Your task to perform on an android device: Do I have any events today? Image 0: 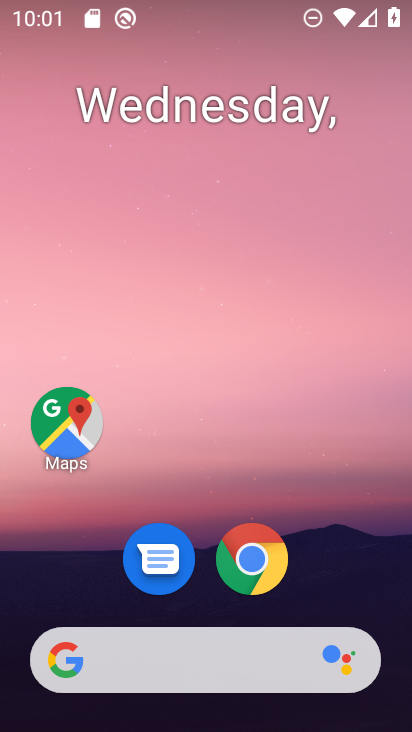
Step 0: drag from (361, 614) to (371, 321)
Your task to perform on an android device: Do I have any events today? Image 1: 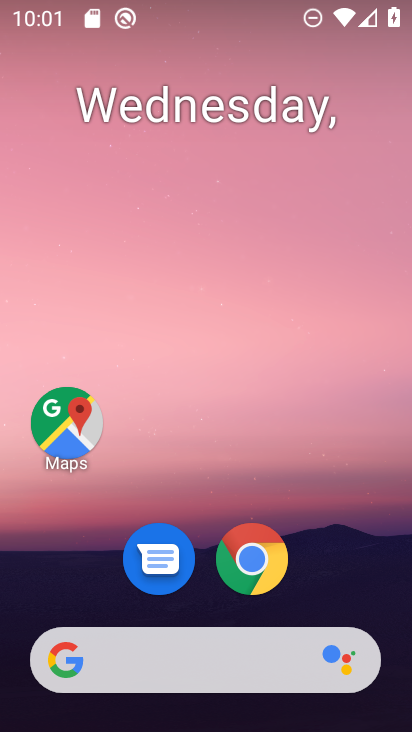
Step 1: drag from (375, 595) to (363, 136)
Your task to perform on an android device: Do I have any events today? Image 2: 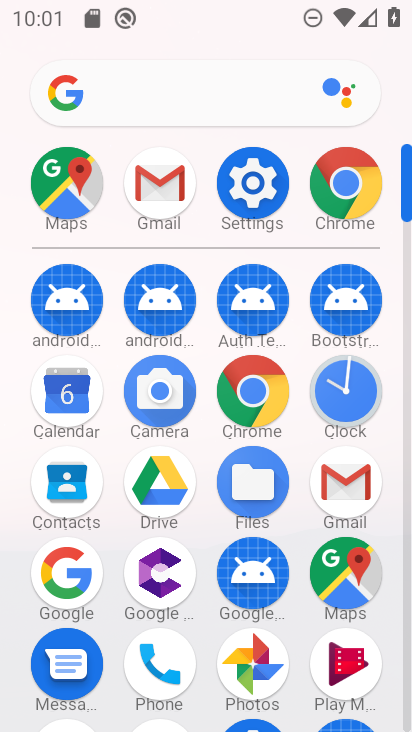
Step 2: click (64, 396)
Your task to perform on an android device: Do I have any events today? Image 3: 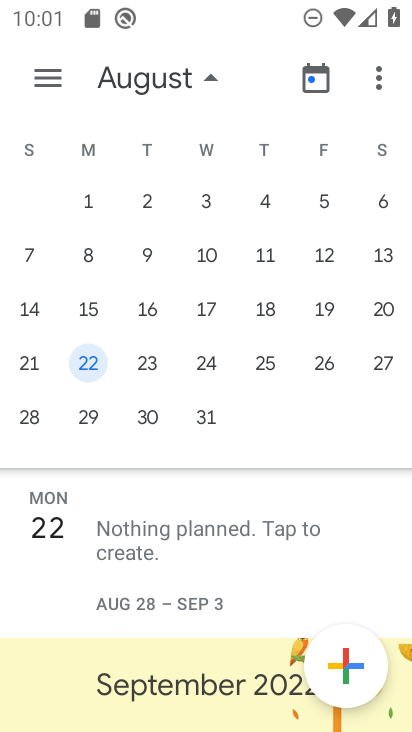
Step 3: drag from (68, 174) to (398, 504)
Your task to perform on an android device: Do I have any events today? Image 4: 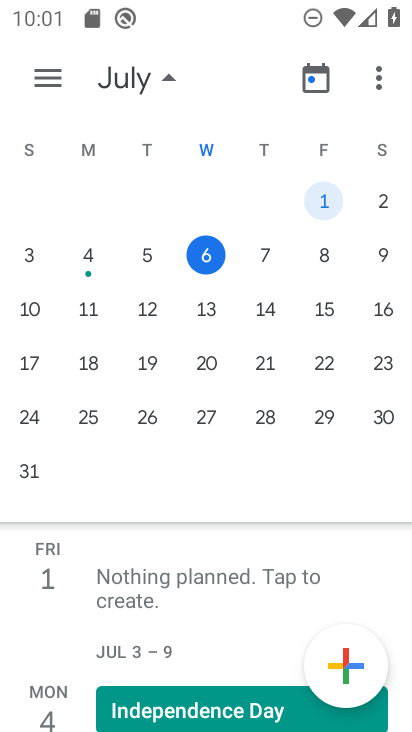
Step 4: click (267, 248)
Your task to perform on an android device: Do I have any events today? Image 5: 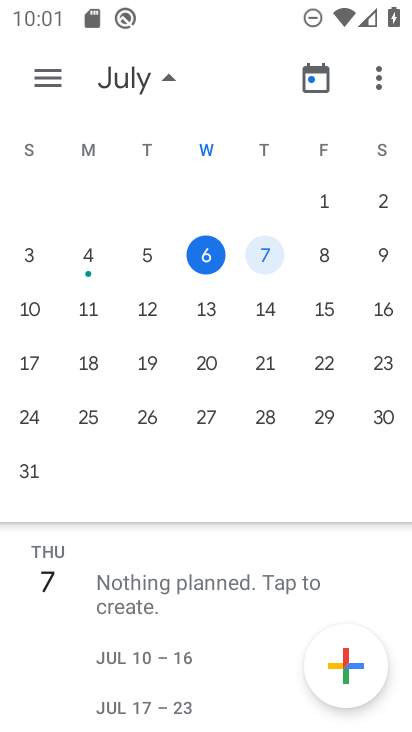
Step 5: task complete